Your task to perform on an android device: change alarm snooze length Image 0: 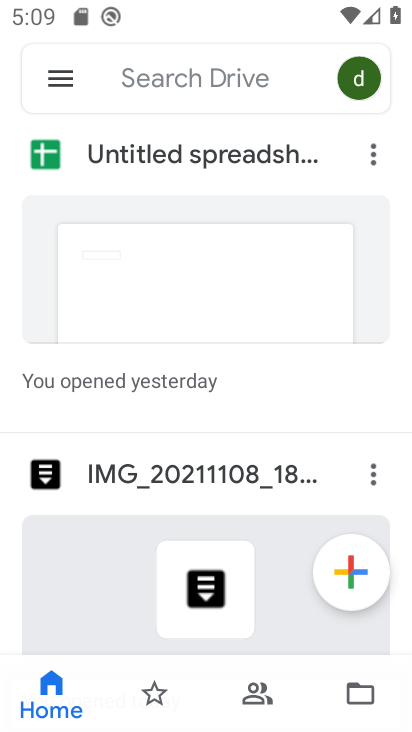
Step 0: press home button
Your task to perform on an android device: change alarm snooze length Image 1: 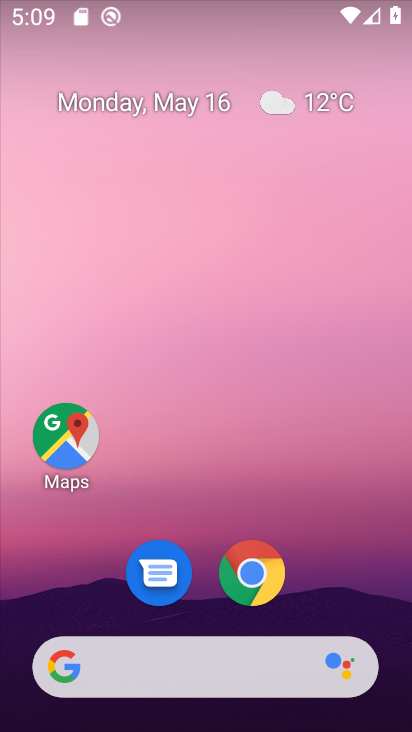
Step 1: drag from (205, 564) to (320, 61)
Your task to perform on an android device: change alarm snooze length Image 2: 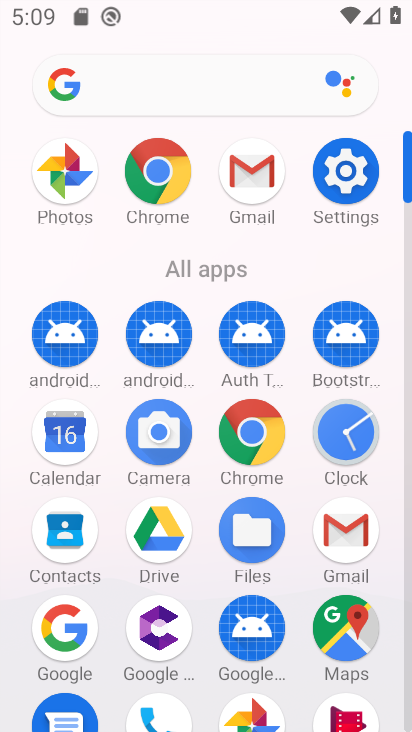
Step 2: click (344, 448)
Your task to perform on an android device: change alarm snooze length Image 3: 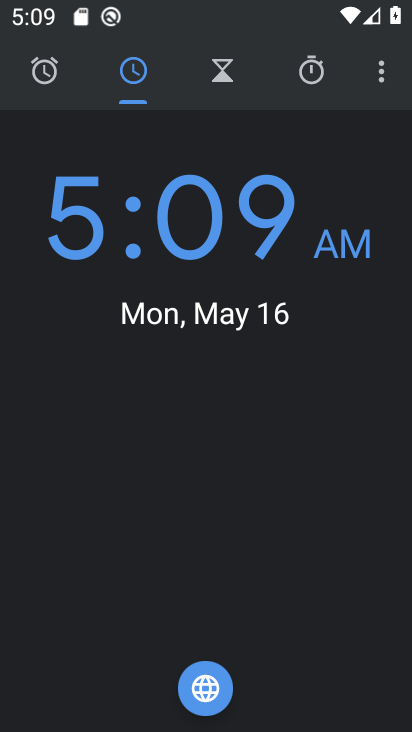
Step 3: click (382, 75)
Your task to perform on an android device: change alarm snooze length Image 4: 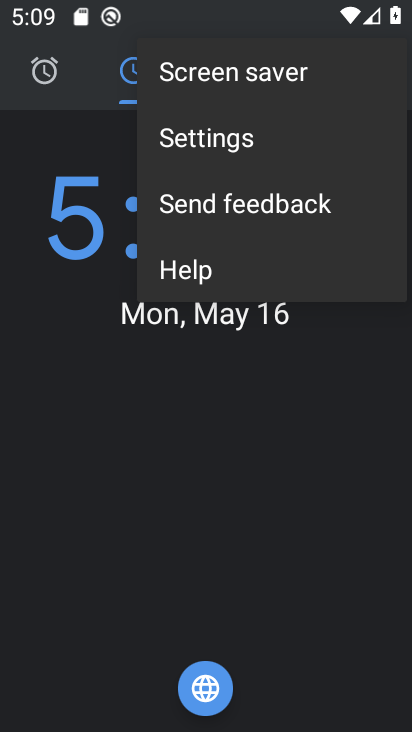
Step 4: click (260, 138)
Your task to perform on an android device: change alarm snooze length Image 5: 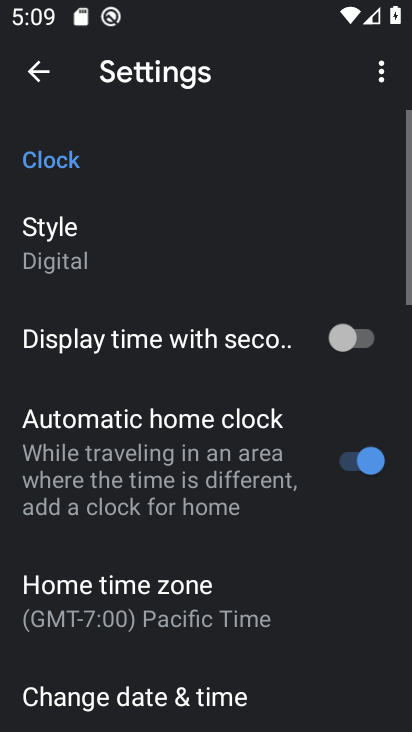
Step 5: drag from (107, 655) to (226, 164)
Your task to perform on an android device: change alarm snooze length Image 6: 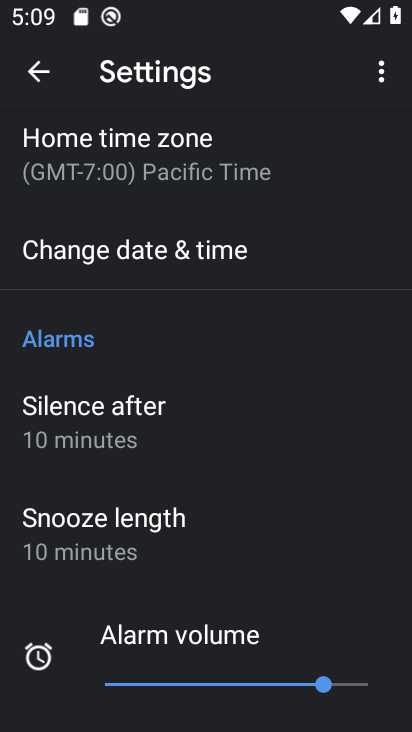
Step 6: click (130, 529)
Your task to perform on an android device: change alarm snooze length Image 7: 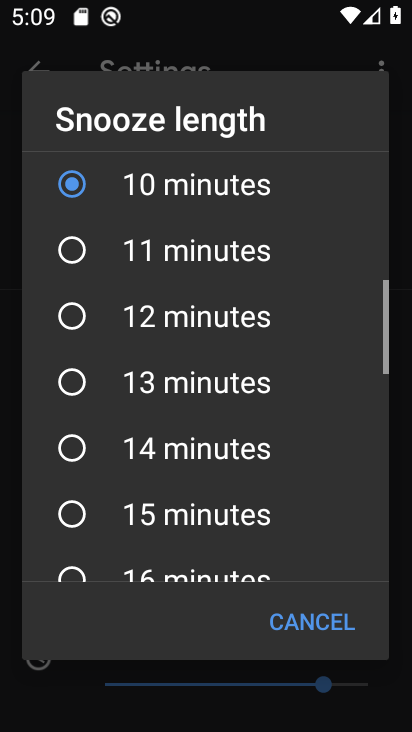
Step 7: click (55, 253)
Your task to perform on an android device: change alarm snooze length Image 8: 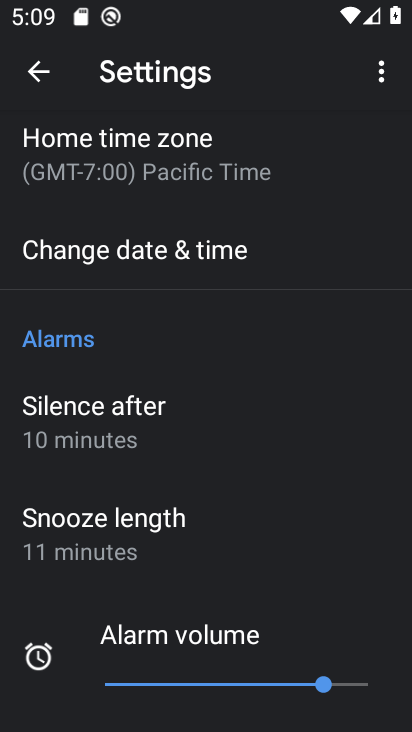
Step 8: task complete